Your task to perform on an android device: change the clock display to digital Image 0: 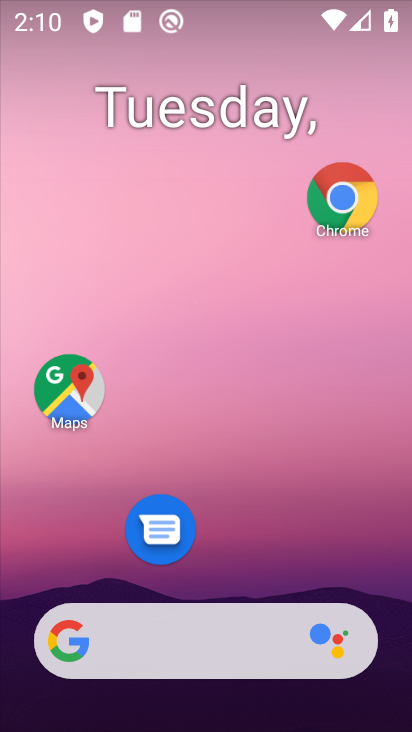
Step 0: drag from (248, 417) to (259, 21)
Your task to perform on an android device: change the clock display to digital Image 1: 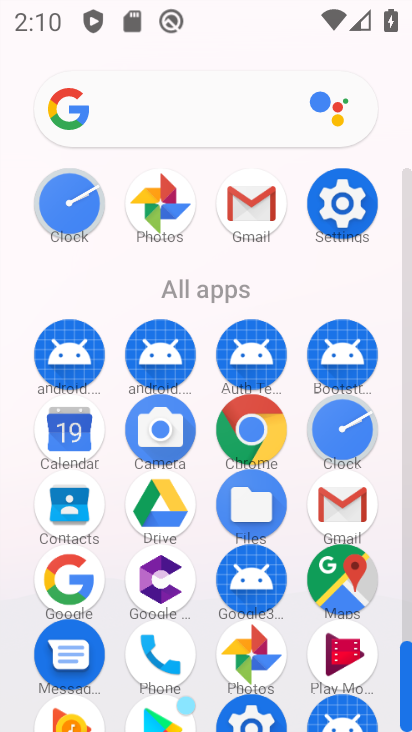
Step 1: click (348, 427)
Your task to perform on an android device: change the clock display to digital Image 2: 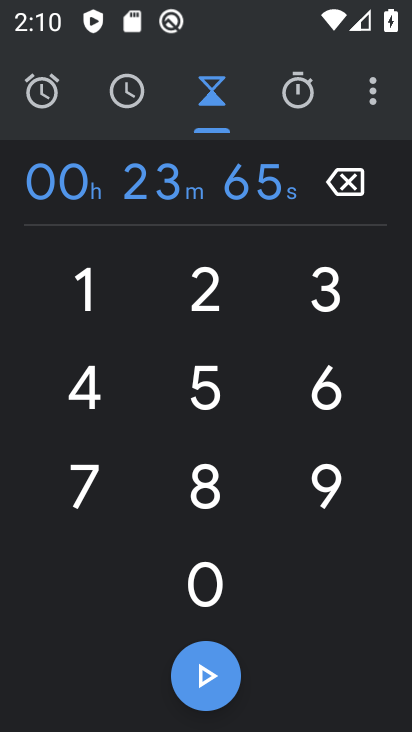
Step 2: click (380, 84)
Your task to perform on an android device: change the clock display to digital Image 3: 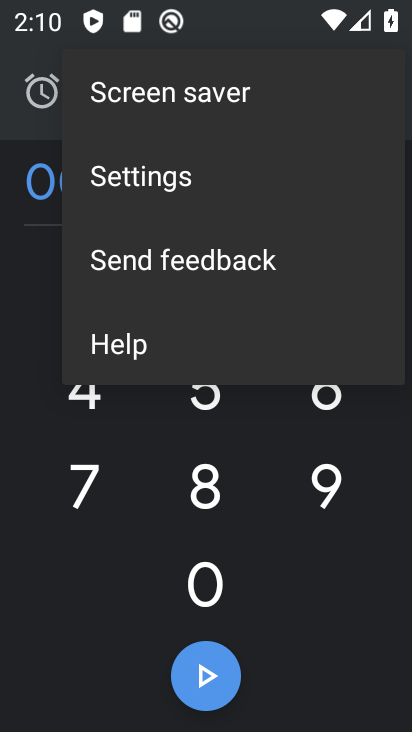
Step 3: click (201, 170)
Your task to perform on an android device: change the clock display to digital Image 4: 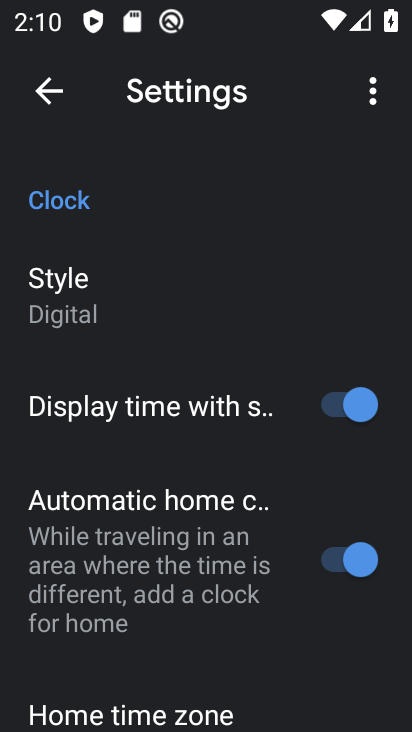
Step 4: task complete